Your task to perform on an android device: Open notification settings Image 0: 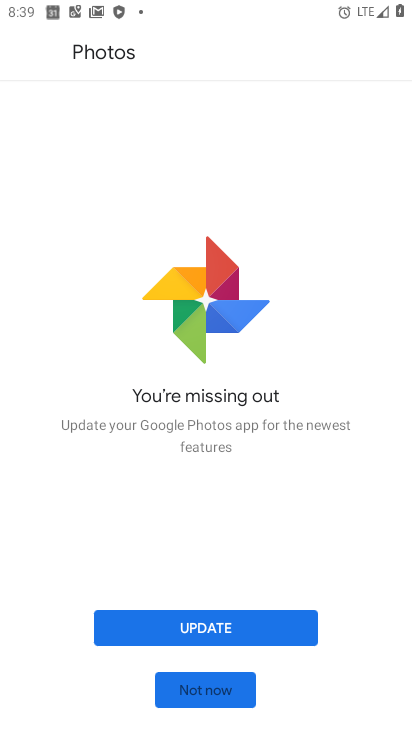
Step 0: press home button
Your task to perform on an android device: Open notification settings Image 1: 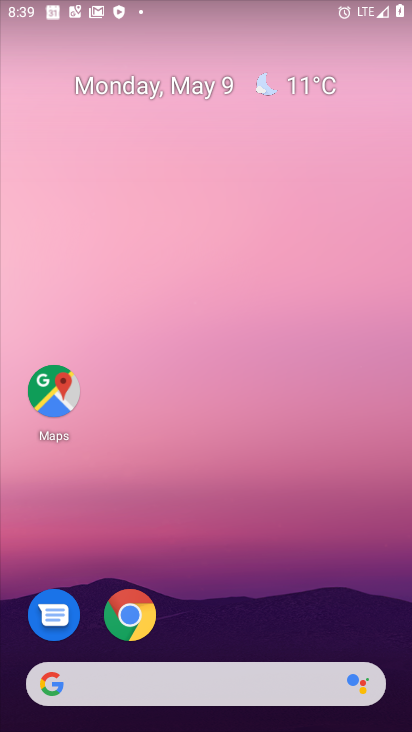
Step 1: drag from (237, 638) to (211, 76)
Your task to perform on an android device: Open notification settings Image 2: 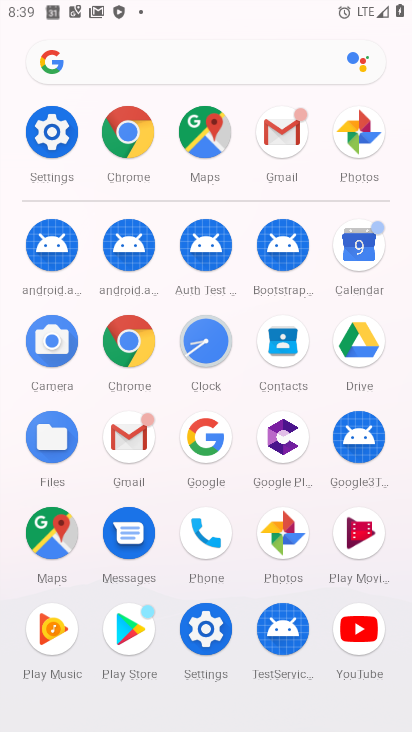
Step 2: click (48, 131)
Your task to perform on an android device: Open notification settings Image 3: 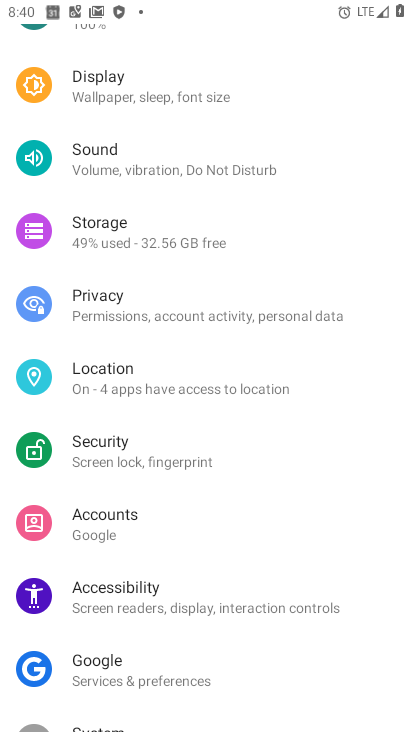
Step 3: drag from (241, 112) to (213, 528)
Your task to perform on an android device: Open notification settings Image 4: 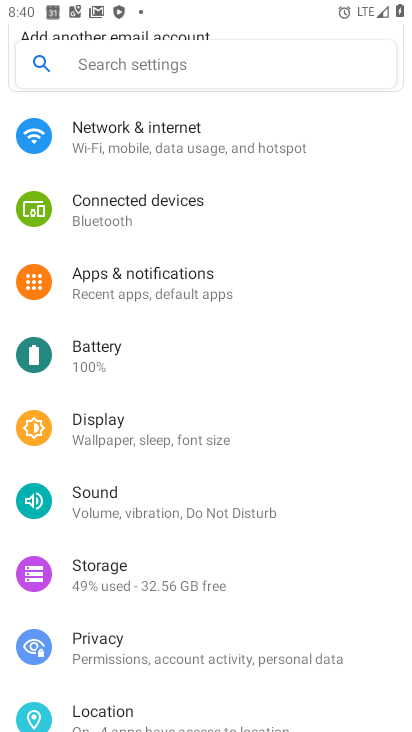
Step 4: click (173, 306)
Your task to perform on an android device: Open notification settings Image 5: 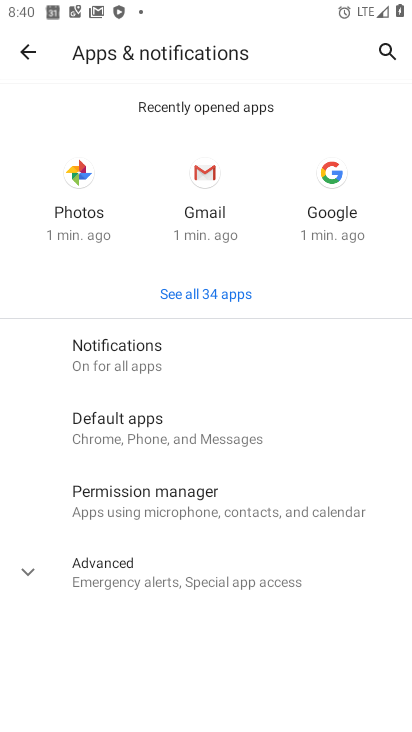
Step 5: task complete